Your task to perform on an android device: see tabs open on other devices in the chrome app Image 0: 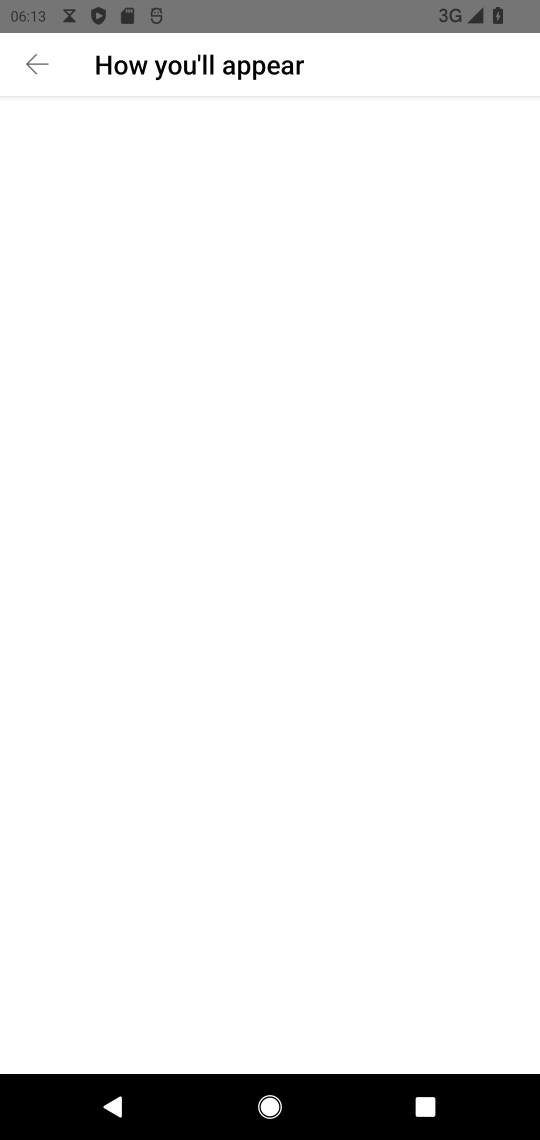
Step 0: press home button
Your task to perform on an android device: see tabs open on other devices in the chrome app Image 1: 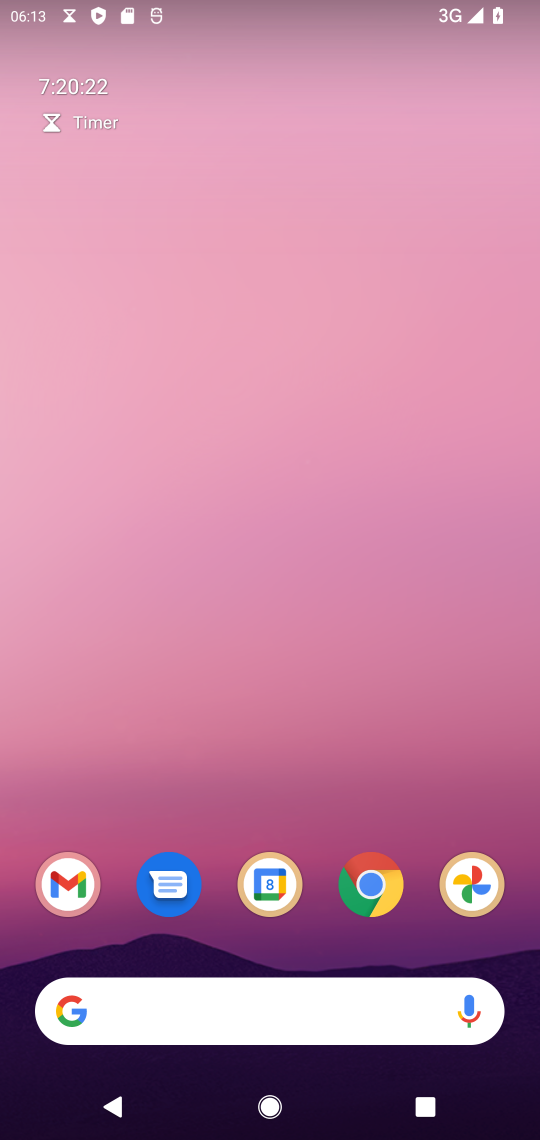
Step 1: click (374, 887)
Your task to perform on an android device: see tabs open on other devices in the chrome app Image 2: 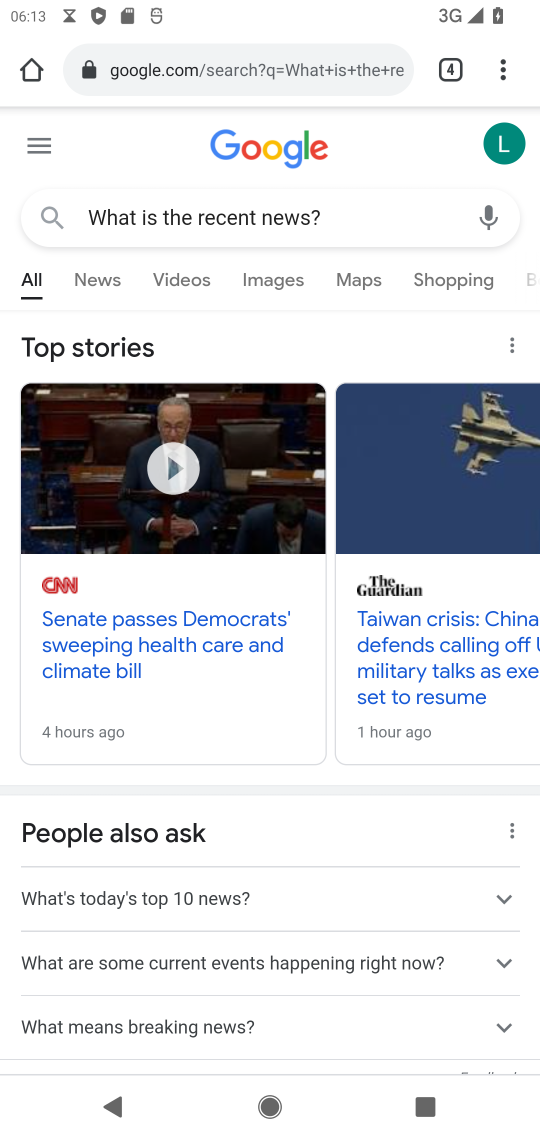
Step 2: click (496, 68)
Your task to perform on an android device: see tabs open on other devices in the chrome app Image 3: 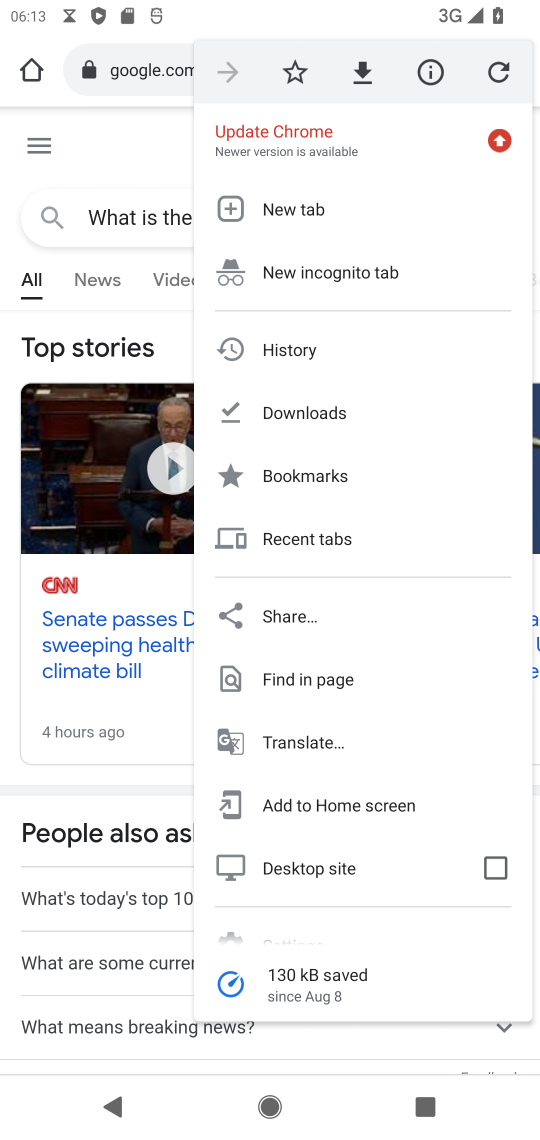
Step 3: click (330, 541)
Your task to perform on an android device: see tabs open on other devices in the chrome app Image 4: 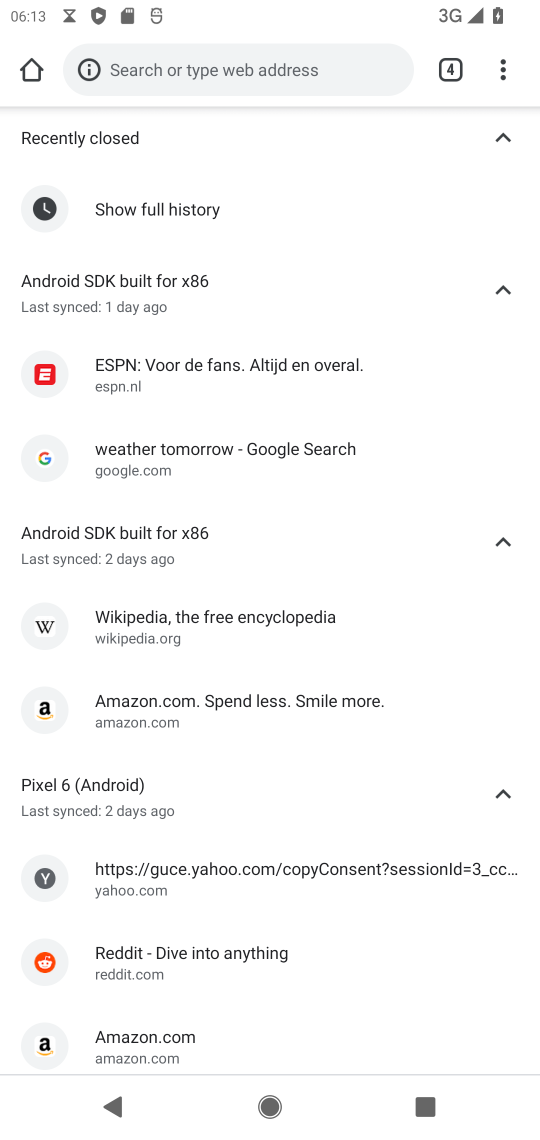
Step 4: task complete